Your task to perform on an android device: set default search engine in the chrome app Image 0: 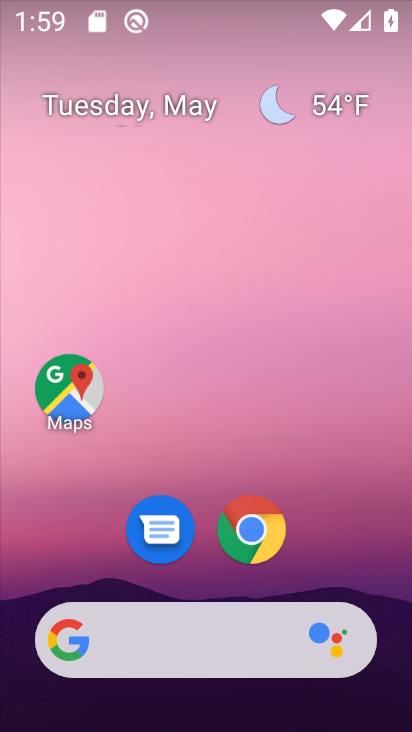
Step 0: drag from (294, 539) to (268, 209)
Your task to perform on an android device: set default search engine in the chrome app Image 1: 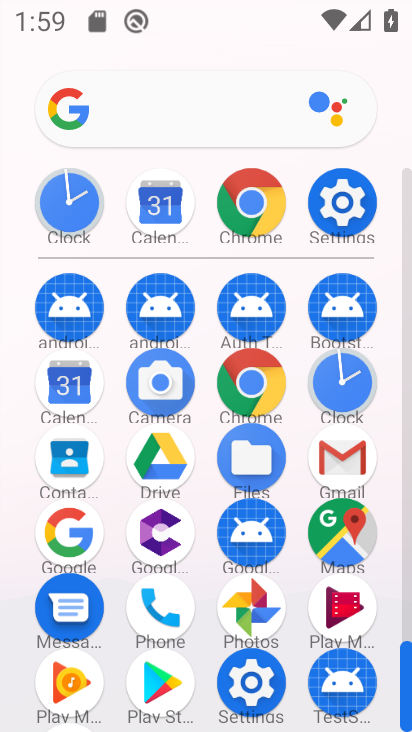
Step 1: click (262, 388)
Your task to perform on an android device: set default search engine in the chrome app Image 2: 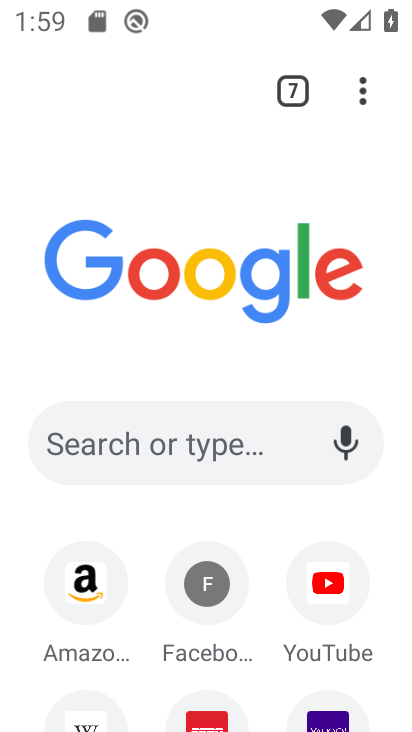
Step 2: click (362, 93)
Your task to perform on an android device: set default search engine in the chrome app Image 3: 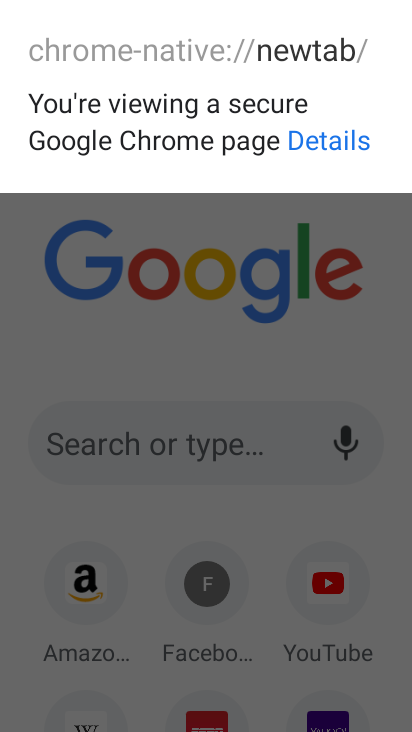
Step 3: press back button
Your task to perform on an android device: set default search engine in the chrome app Image 4: 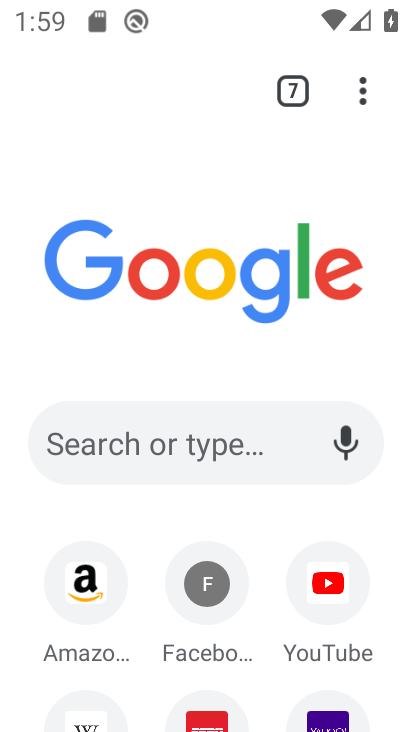
Step 4: click (376, 58)
Your task to perform on an android device: set default search engine in the chrome app Image 5: 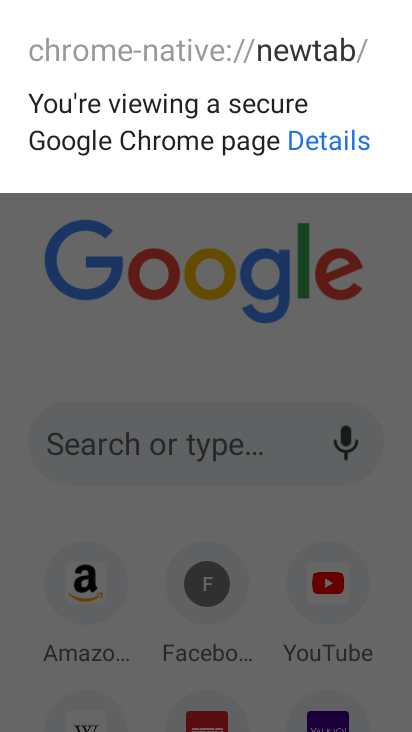
Step 5: press back button
Your task to perform on an android device: set default search engine in the chrome app Image 6: 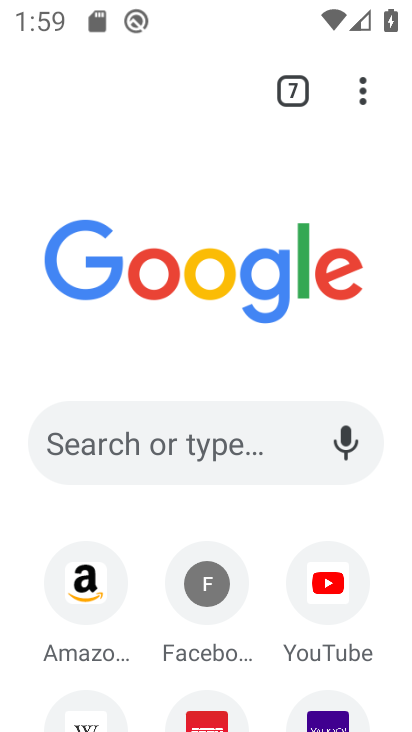
Step 6: click (387, 90)
Your task to perform on an android device: set default search engine in the chrome app Image 7: 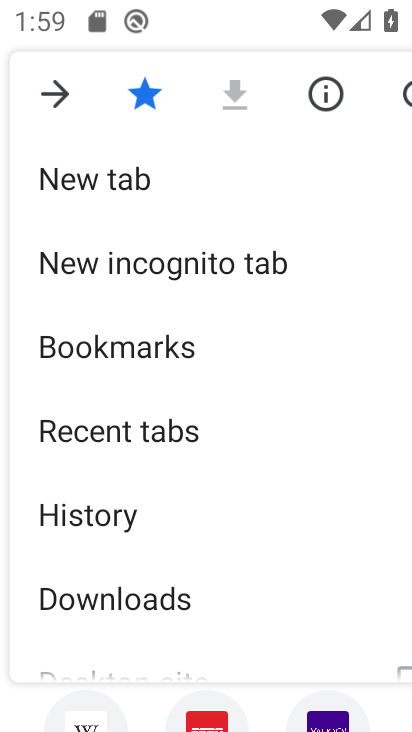
Step 7: drag from (183, 615) to (213, 283)
Your task to perform on an android device: set default search engine in the chrome app Image 8: 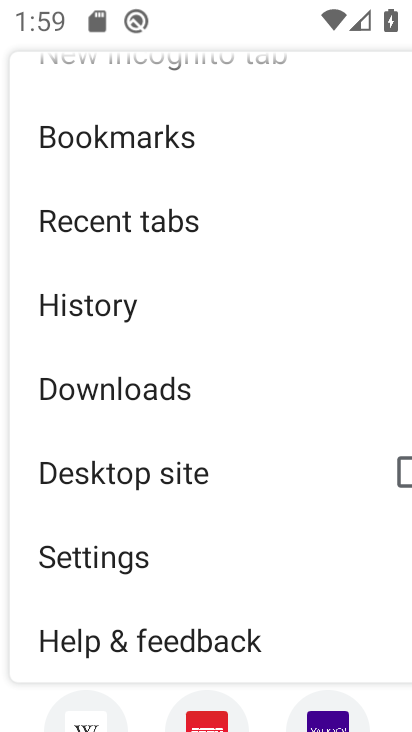
Step 8: click (139, 559)
Your task to perform on an android device: set default search engine in the chrome app Image 9: 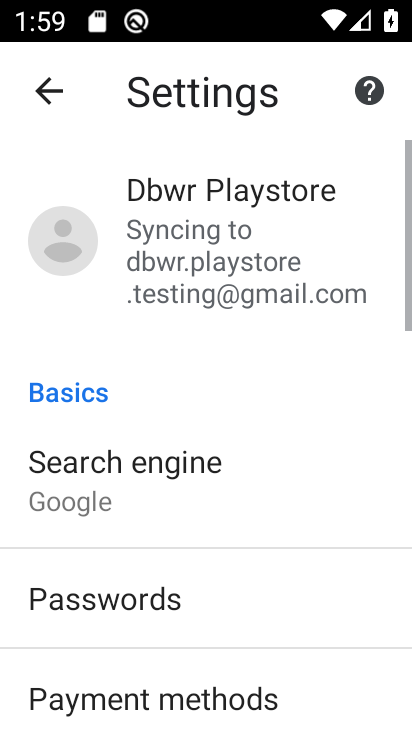
Step 9: click (141, 465)
Your task to perform on an android device: set default search engine in the chrome app Image 10: 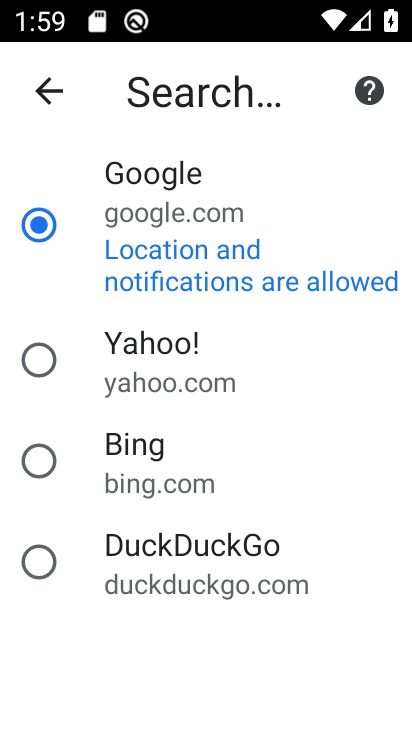
Step 10: click (134, 434)
Your task to perform on an android device: set default search engine in the chrome app Image 11: 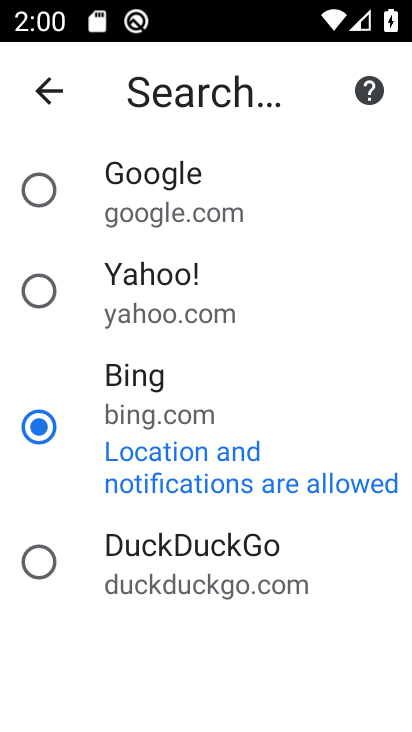
Step 11: task complete